Your task to perform on an android device: When is my next meeting? Image 0: 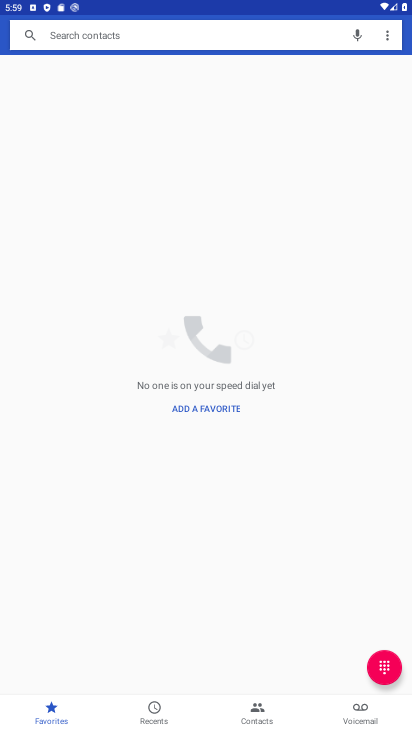
Step 0: press home button
Your task to perform on an android device: When is my next meeting? Image 1: 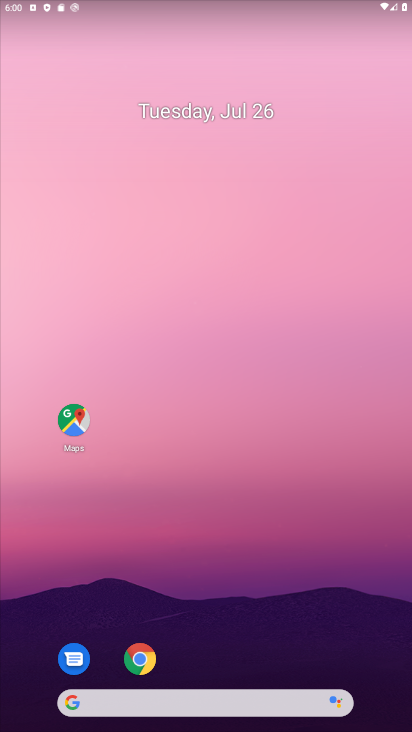
Step 1: drag from (236, 619) to (276, 332)
Your task to perform on an android device: When is my next meeting? Image 2: 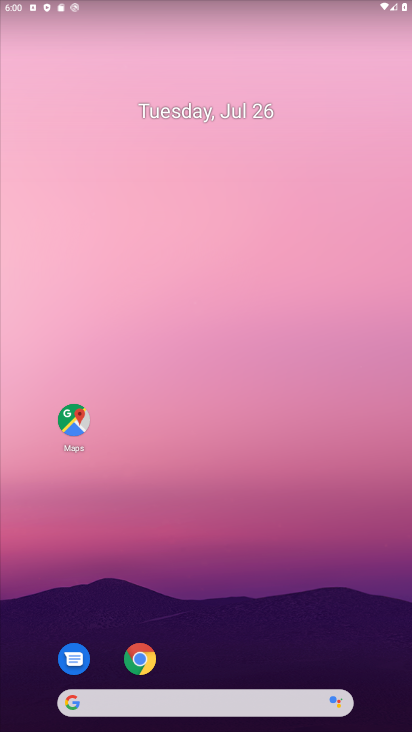
Step 2: drag from (294, 463) to (251, 101)
Your task to perform on an android device: When is my next meeting? Image 3: 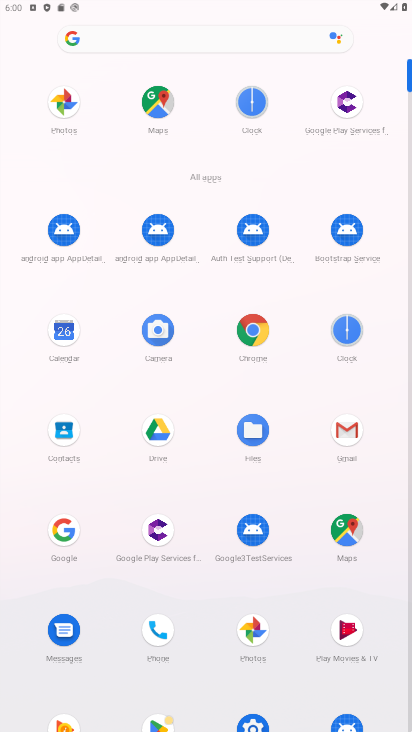
Step 3: click (62, 325)
Your task to perform on an android device: When is my next meeting? Image 4: 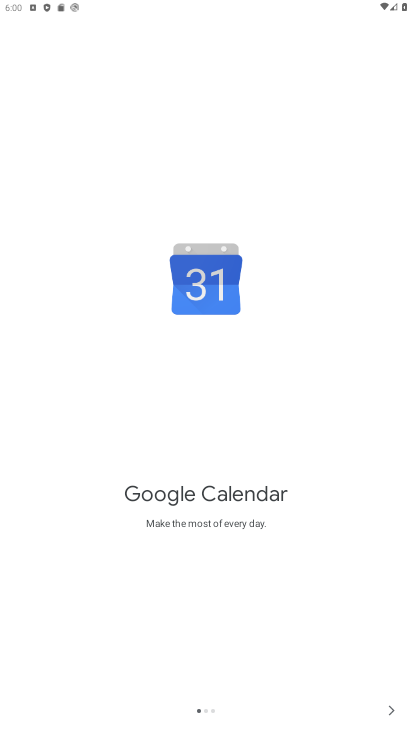
Step 4: click (387, 709)
Your task to perform on an android device: When is my next meeting? Image 5: 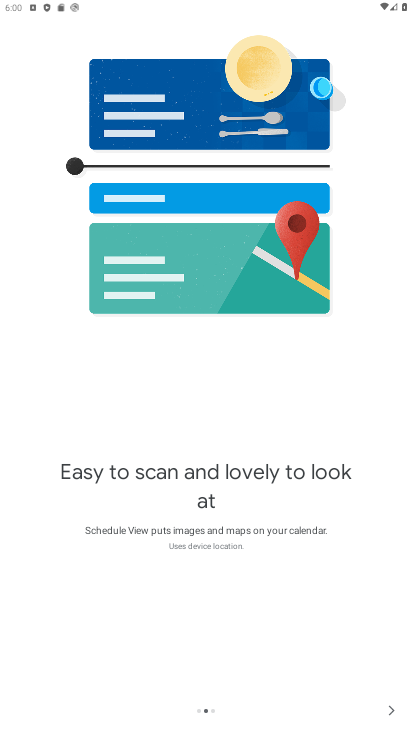
Step 5: click (387, 709)
Your task to perform on an android device: When is my next meeting? Image 6: 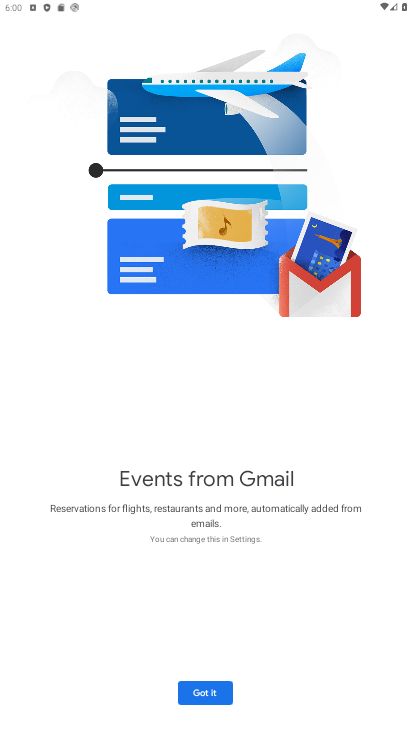
Step 6: click (387, 709)
Your task to perform on an android device: When is my next meeting? Image 7: 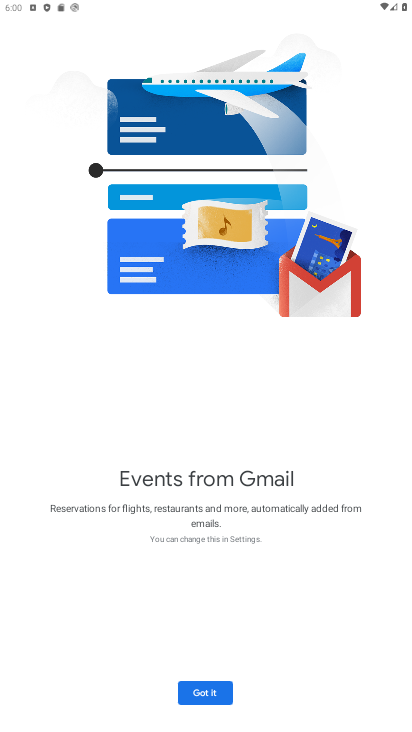
Step 7: click (197, 691)
Your task to perform on an android device: When is my next meeting? Image 8: 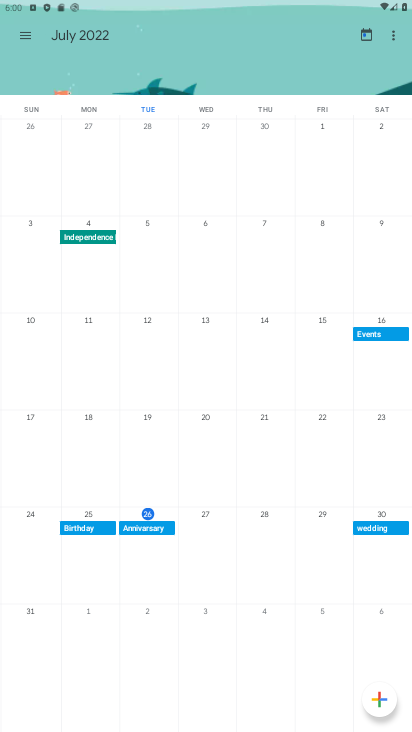
Step 8: task complete